Your task to perform on an android device: change timer sound Image 0: 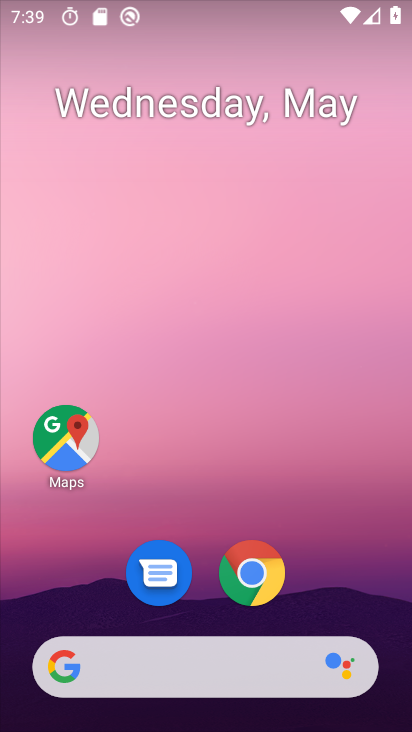
Step 0: drag from (356, 597) to (333, 47)
Your task to perform on an android device: change timer sound Image 1: 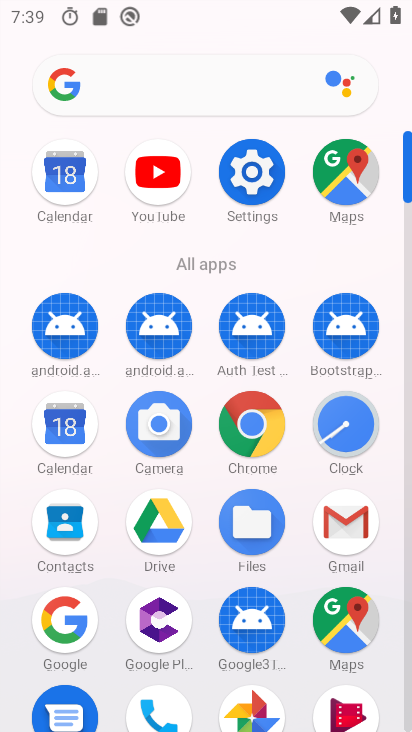
Step 1: click (345, 426)
Your task to perform on an android device: change timer sound Image 2: 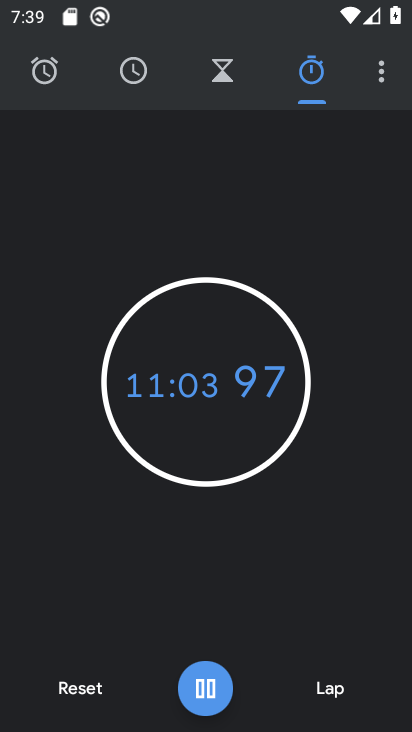
Step 2: click (387, 74)
Your task to perform on an android device: change timer sound Image 3: 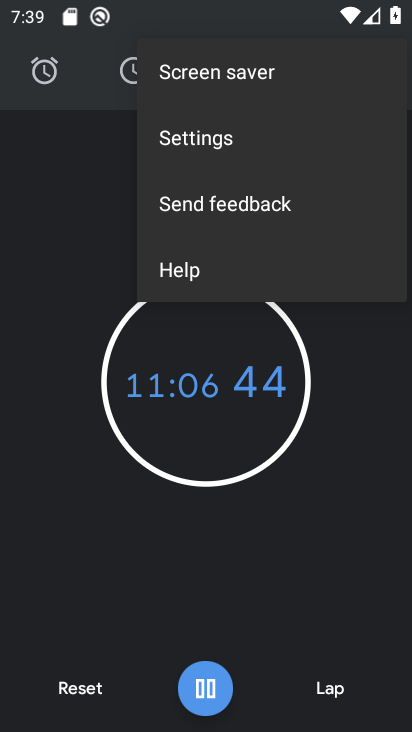
Step 3: click (300, 131)
Your task to perform on an android device: change timer sound Image 4: 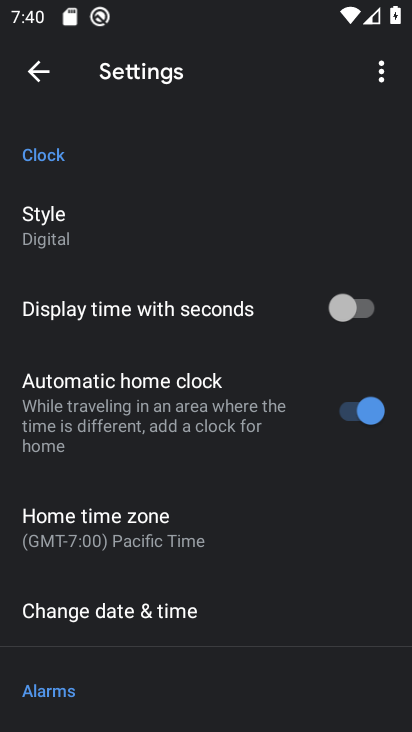
Step 4: drag from (321, 593) to (302, 327)
Your task to perform on an android device: change timer sound Image 5: 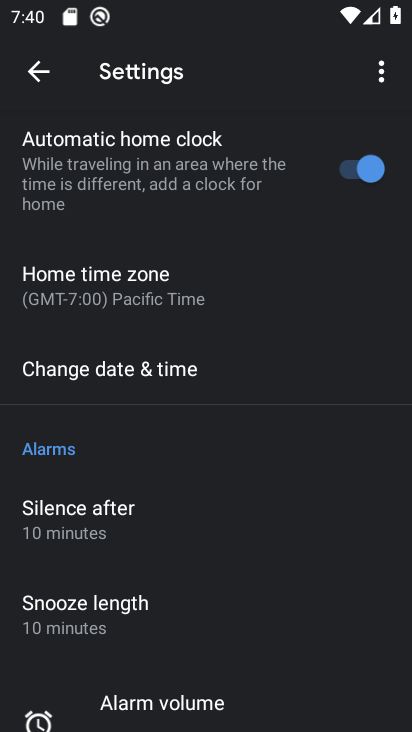
Step 5: drag from (296, 582) to (263, 382)
Your task to perform on an android device: change timer sound Image 6: 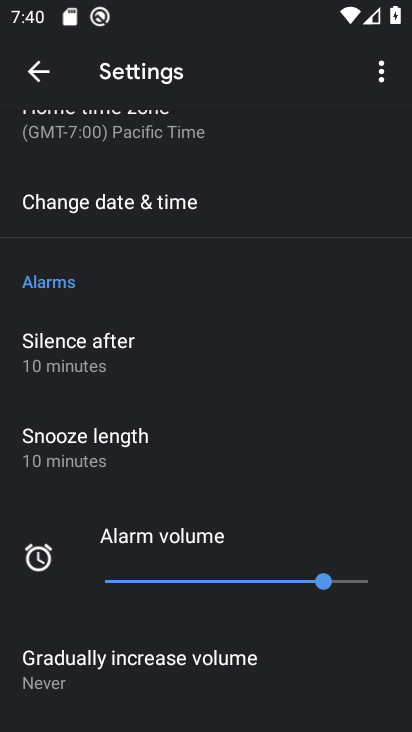
Step 6: drag from (286, 647) to (274, 472)
Your task to perform on an android device: change timer sound Image 7: 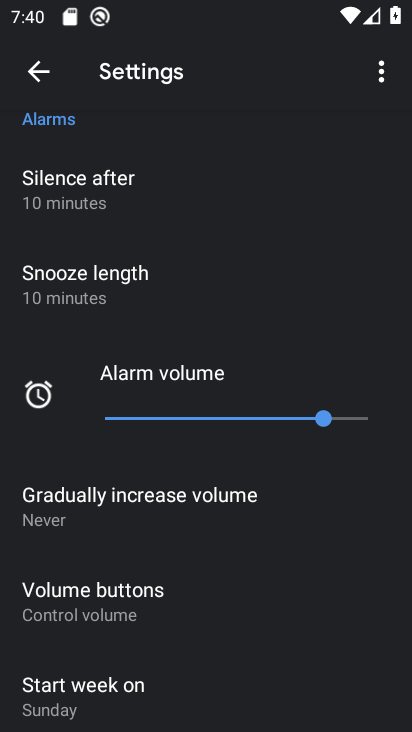
Step 7: drag from (257, 614) to (260, 441)
Your task to perform on an android device: change timer sound Image 8: 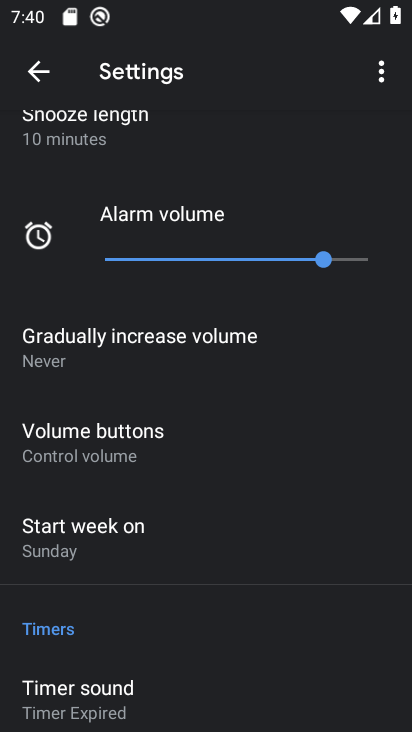
Step 8: drag from (250, 658) to (306, 372)
Your task to perform on an android device: change timer sound Image 9: 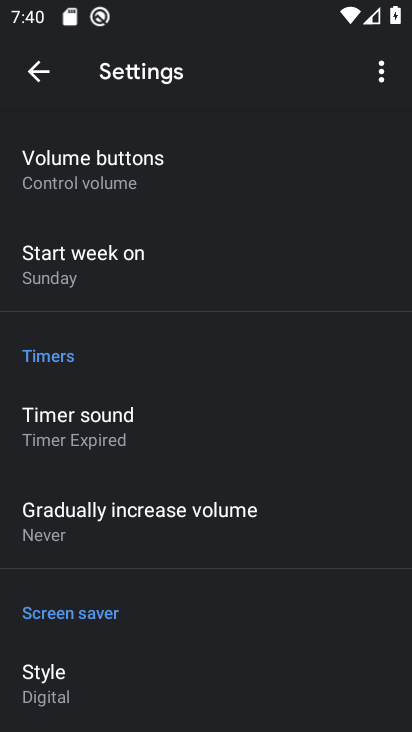
Step 9: click (283, 407)
Your task to perform on an android device: change timer sound Image 10: 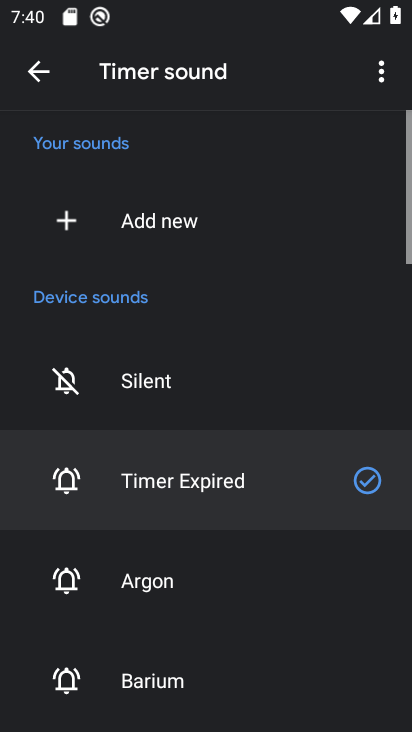
Step 10: click (192, 639)
Your task to perform on an android device: change timer sound Image 11: 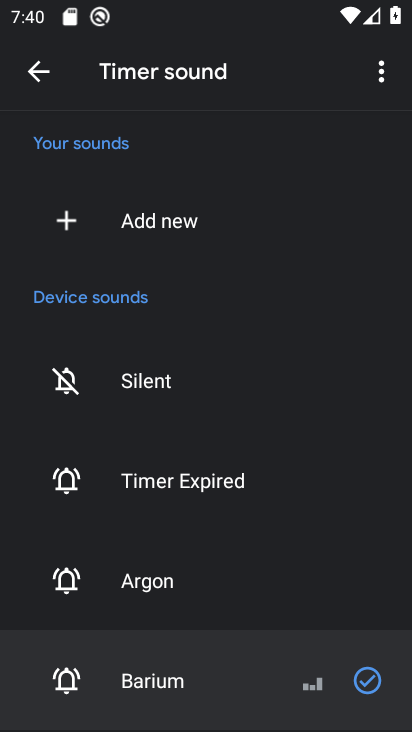
Step 11: task complete